Your task to perform on an android device: Open Google Maps Image 0: 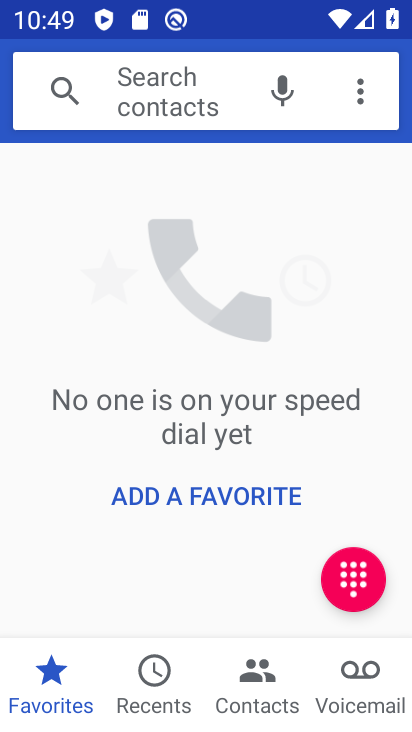
Step 0: press home button
Your task to perform on an android device: Open Google Maps Image 1: 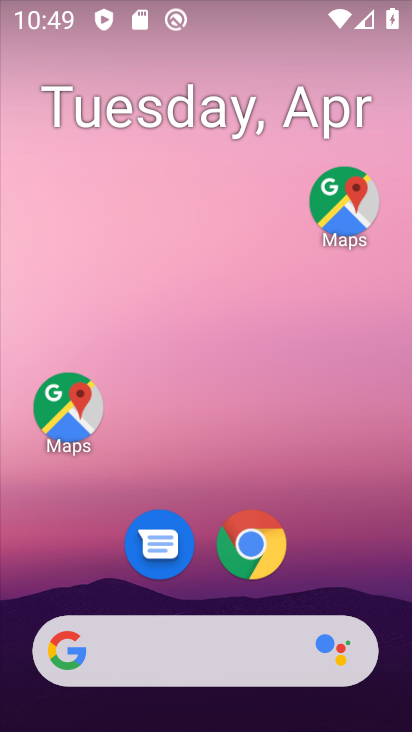
Step 1: click (73, 424)
Your task to perform on an android device: Open Google Maps Image 2: 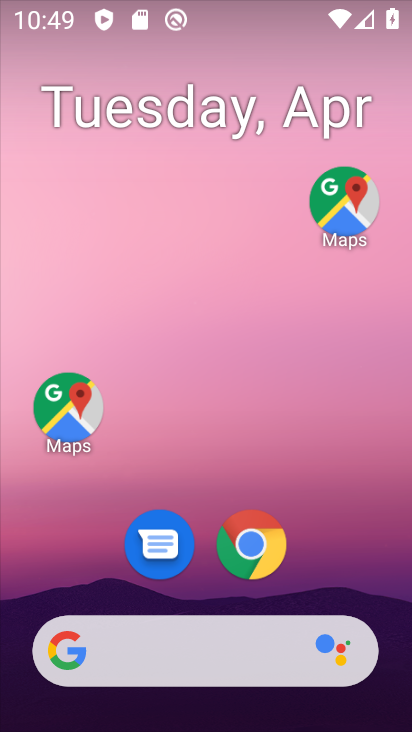
Step 2: click (73, 424)
Your task to perform on an android device: Open Google Maps Image 3: 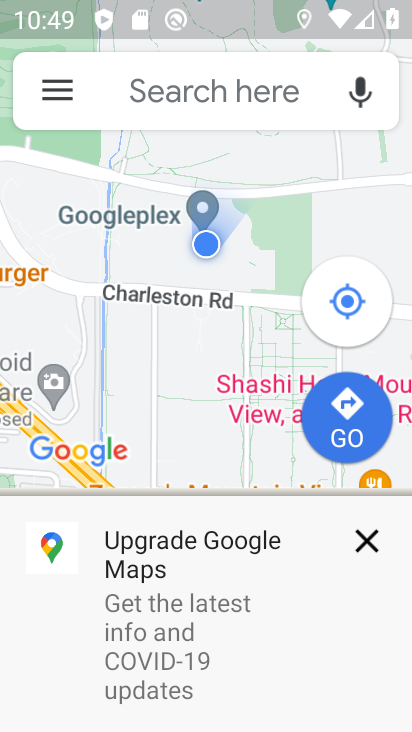
Step 3: task complete